Your task to perform on an android device: turn pop-ups off in chrome Image 0: 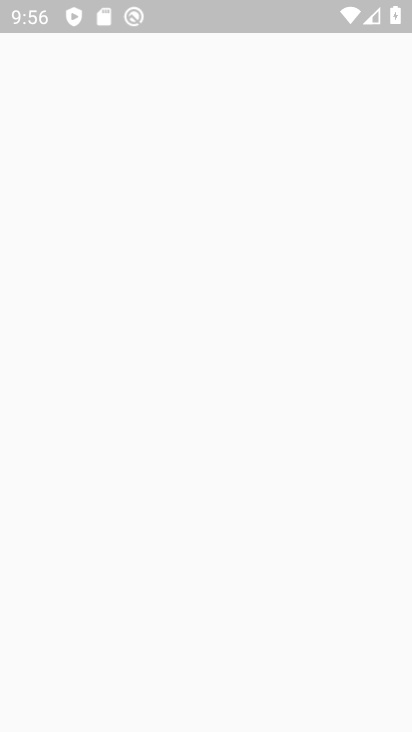
Step 0: press home button
Your task to perform on an android device: turn pop-ups off in chrome Image 1: 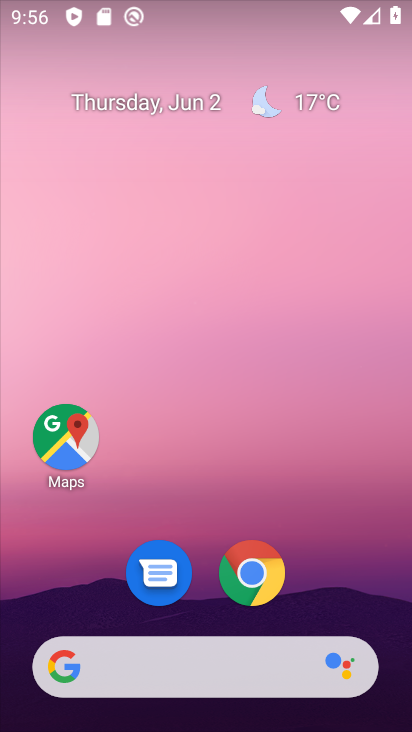
Step 1: click (253, 574)
Your task to perform on an android device: turn pop-ups off in chrome Image 2: 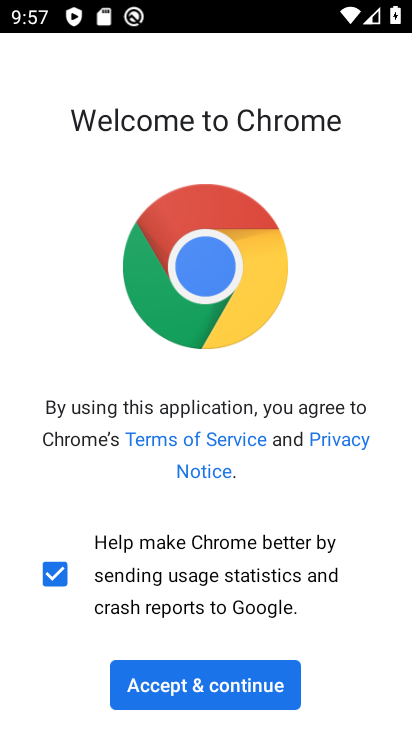
Step 2: click (209, 681)
Your task to perform on an android device: turn pop-ups off in chrome Image 3: 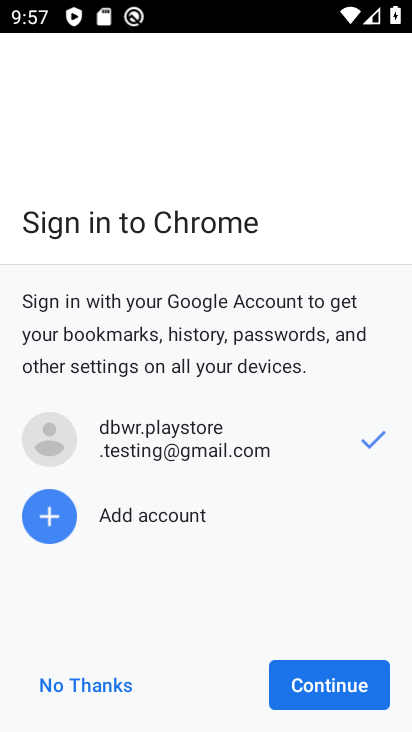
Step 3: click (321, 685)
Your task to perform on an android device: turn pop-ups off in chrome Image 4: 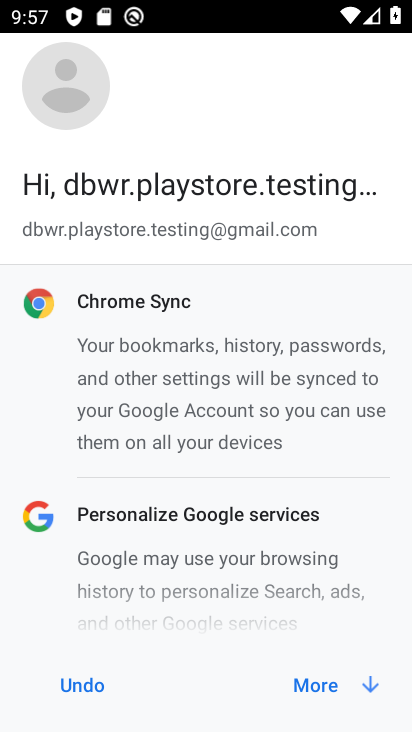
Step 4: click (321, 685)
Your task to perform on an android device: turn pop-ups off in chrome Image 5: 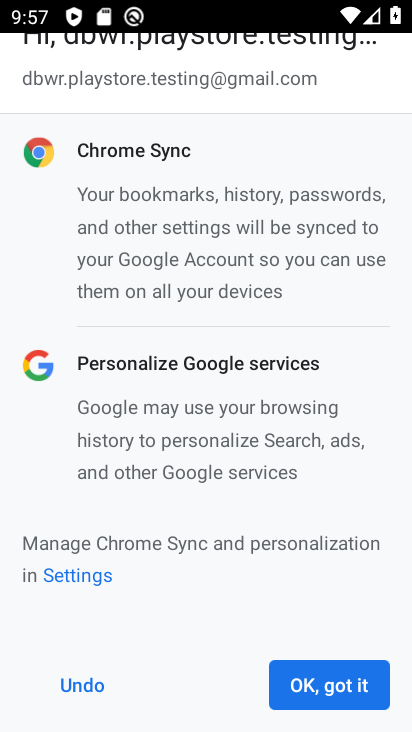
Step 5: click (321, 685)
Your task to perform on an android device: turn pop-ups off in chrome Image 6: 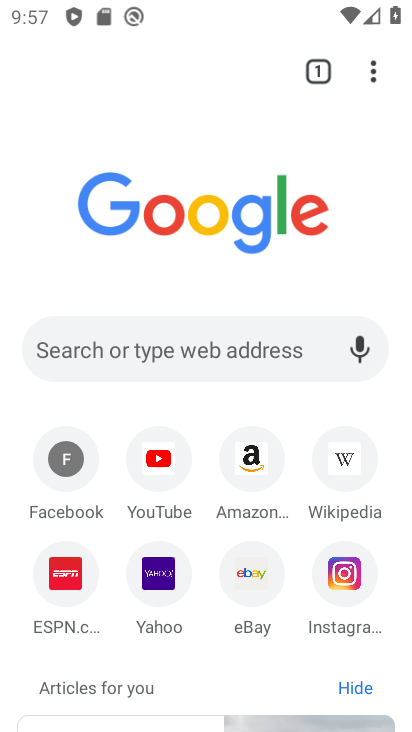
Step 6: click (375, 71)
Your task to perform on an android device: turn pop-ups off in chrome Image 7: 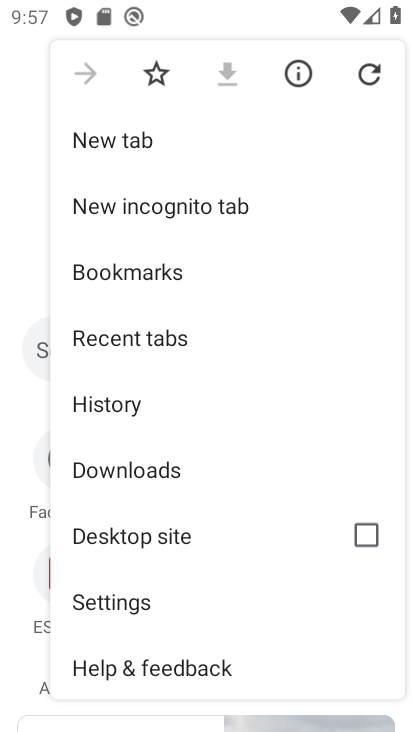
Step 7: click (141, 605)
Your task to perform on an android device: turn pop-ups off in chrome Image 8: 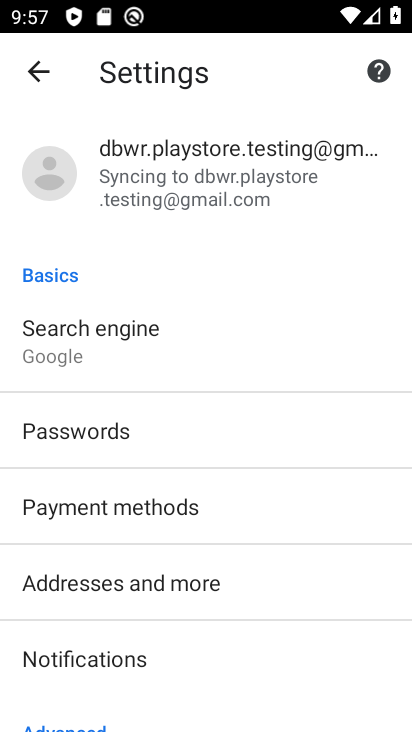
Step 8: drag from (147, 545) to (197, 414)
Your task to perform on an android device: turn pop-ups off in chrome Image 9: 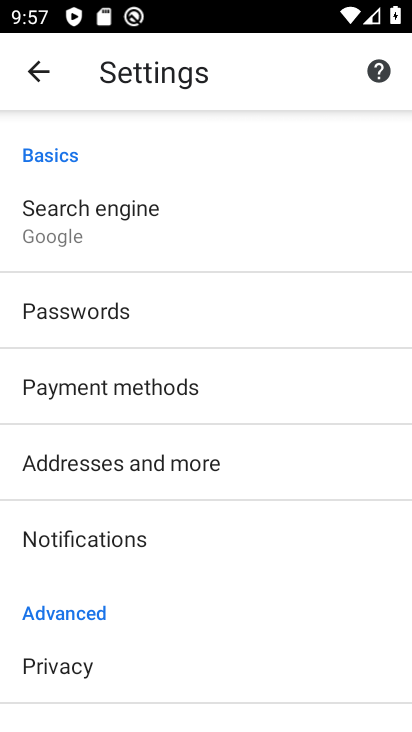
Step 9: drag from (139, 562) to (248, 428)
Your task to perform on an android device: turn pop-ups off in chrome Image 10: 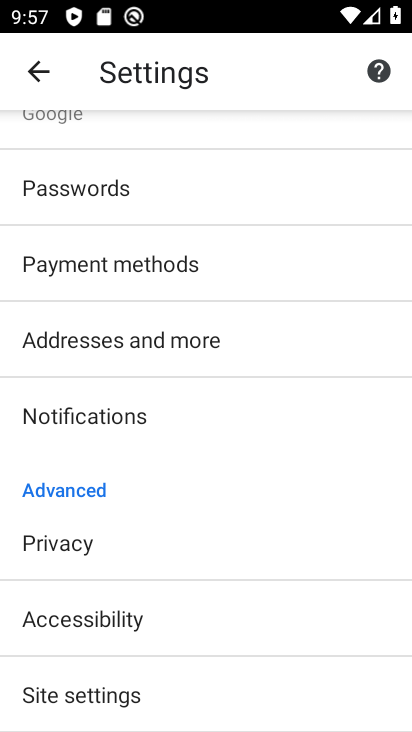
Step 10: drag from (174, 610) to (260, 495)
Your task to perform on an android device: turn pop-ups off in chrome Image 11: 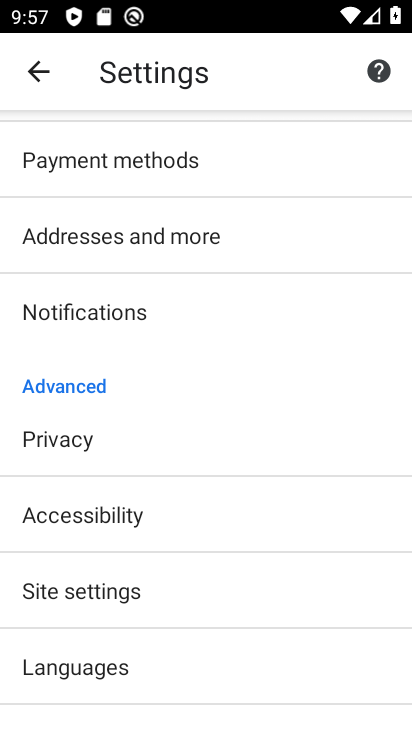
Step 11: click (124, 577)
Your task to perform on an android device: turn pop-ups off in chrome Image 12: 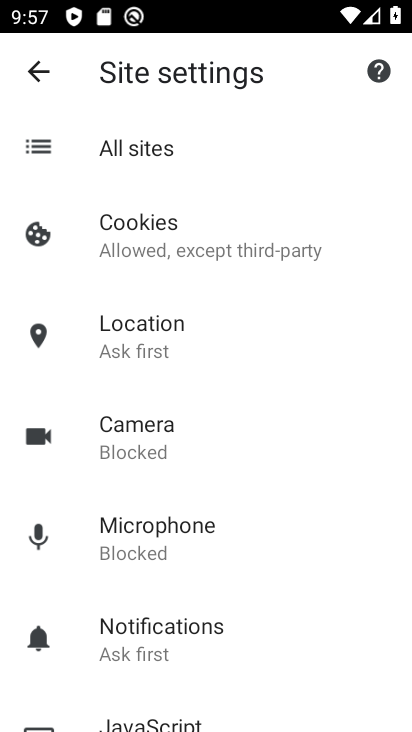
Step 12: drag from (183, 572) to (211, 466)
Your task to perform on an android device: turn pop-ups off in chrome Image 13: 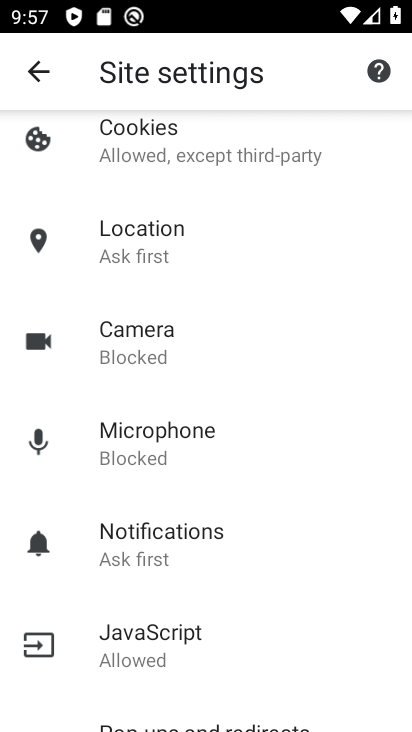
Step 13: drag from (157, 581) to (226, 464)
Your task to perform on an android device: turn pop-ups off in chrome Image 14: 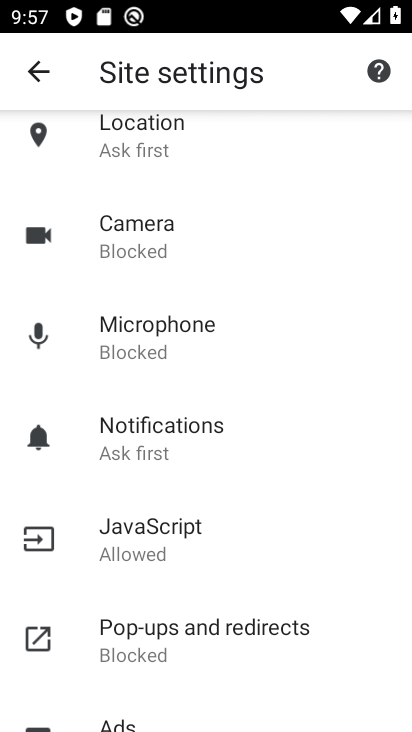
Step 14: click (176, 615)
Your task to perform on an android device: turn pop-ups off in chrome Image 15: 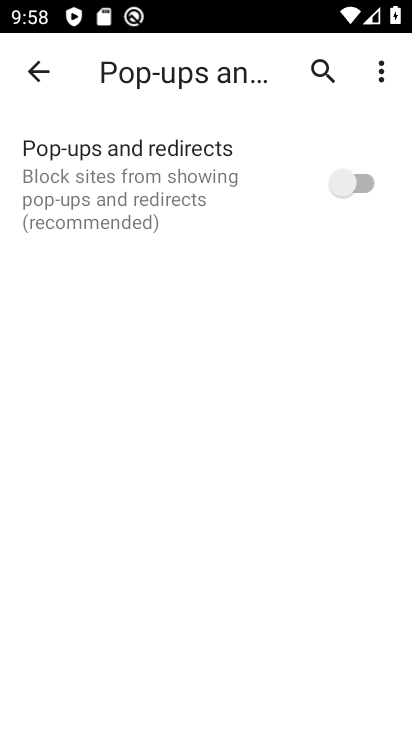
Step 15: task complete